Your task to perform on an android device: turn on airplane mode Image 0: 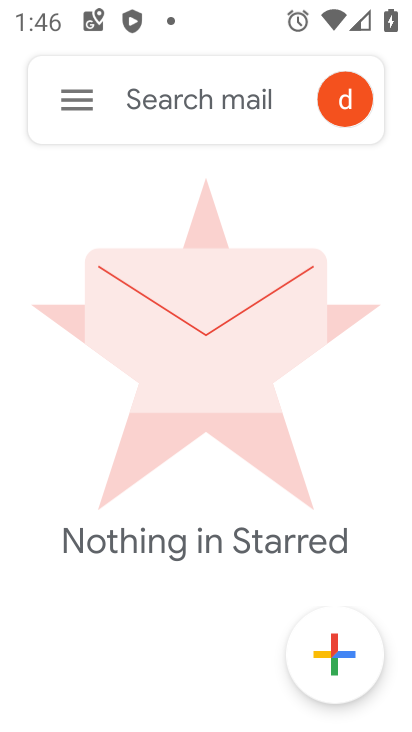
Step 0: press home button
Your task to perform on an android device: turn on airplane mode Image 1: 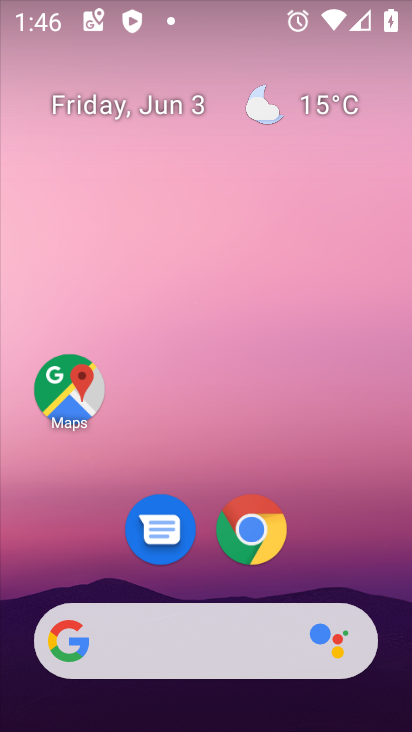
Step 1: drag from (363, 563) to (343, 201)
Your task to perform on an android device: turn on airplane mode Image 2: 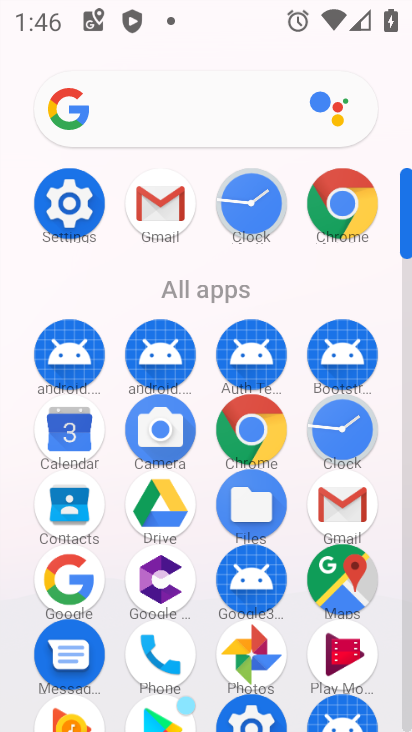
Step 2: click (76, 218)
Your task to perform on an android device: turn on airplane mode Image 3: 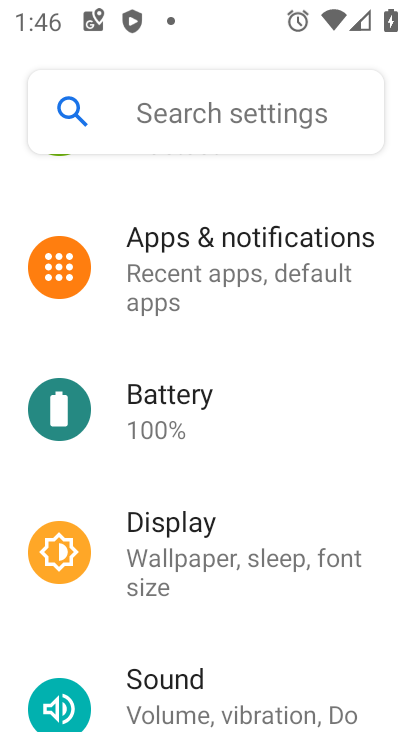
Step 3: drag from (372, 343) to (364, 460)
Your task to perform on an android device: turn on airplane mode Image 4: 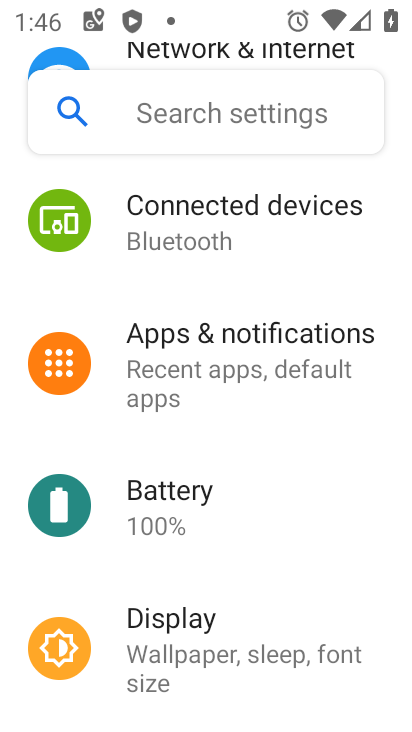
Step 4: drag from (365, 266) to (368, 437)
Your task to perform on an android device: turn on airplane mode Image 5: 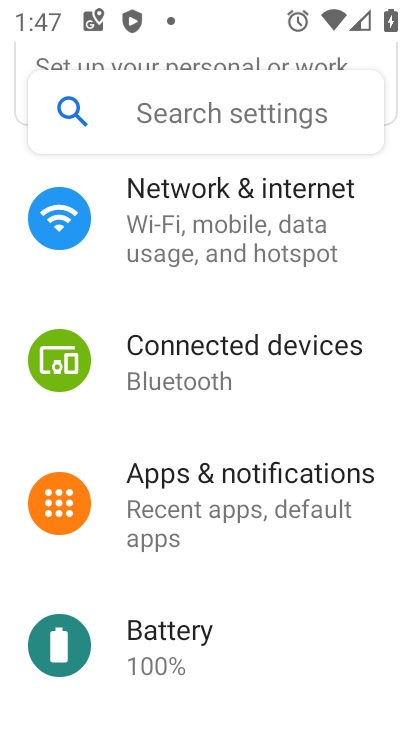
Step 5: drag from (374, 253) to (366, 474)
Your task to perform on an android device: turn on airplane mode Image 6: 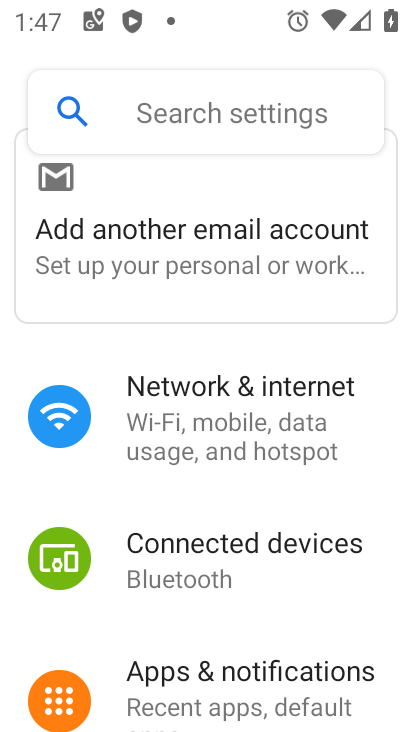
Step 6: drag from (374, 184) to (374, 393)
Your task to perform on an android device: turn on airplane mode Image 7: 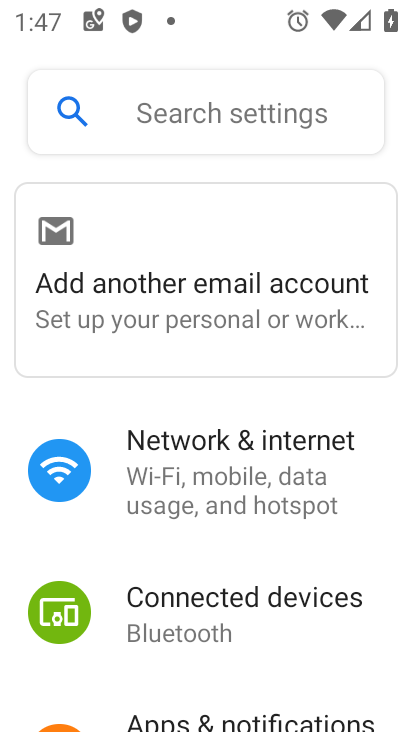
Step 7: click (309, 465)
Your task to perform on an android device: turn on airplane mode Image 8: 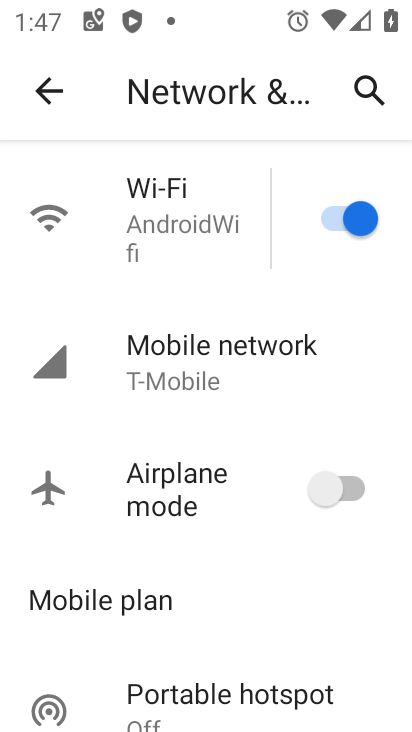
Step 8: click (332, 499)
Your task to perform on an android device: turn on airplane mode Image 9: 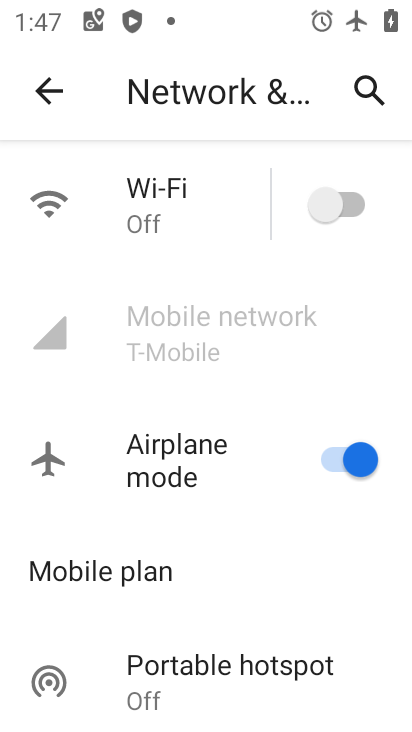
Step 9: task complete